Your task to perform on an android device: Open settings Image 0: 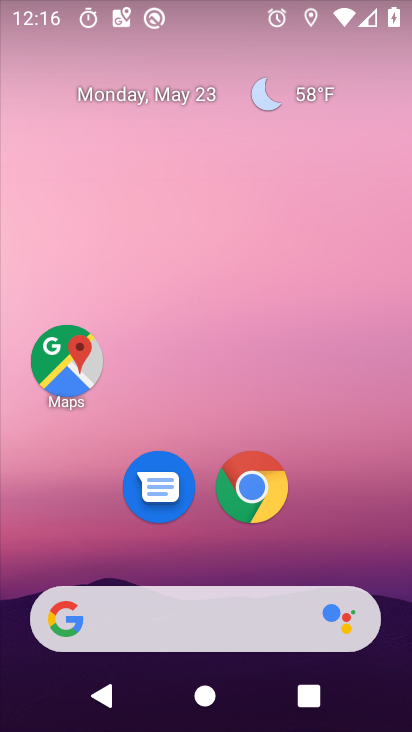
Step 0: drag from (315, 525) to (327, 111)
Your task to perform on an android device: Open settings Image 1: 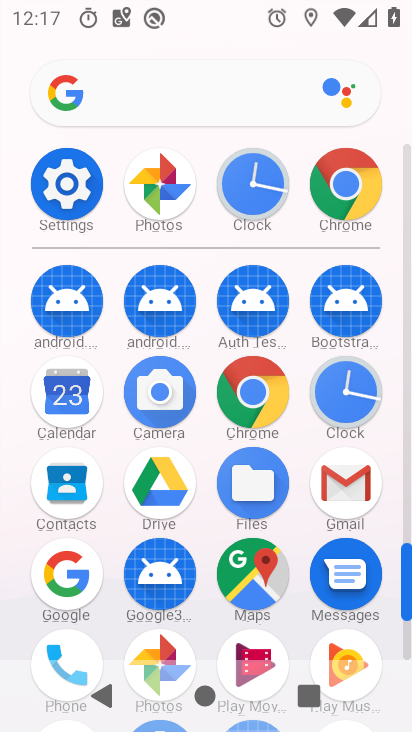
Step 1: click (77, 192)
Your task to perform on an android device: Open settings Image 2: 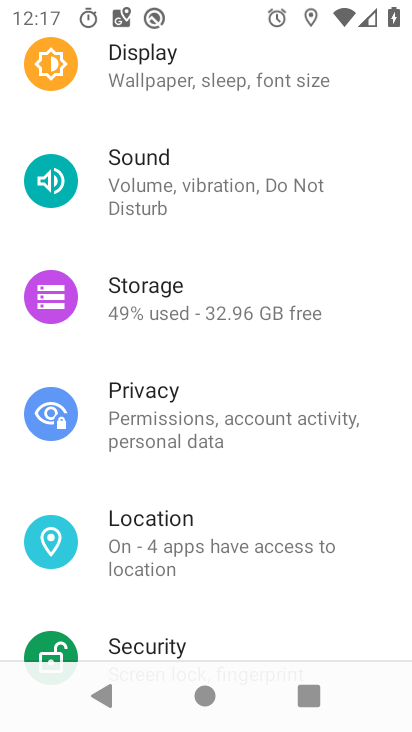
Step 2: task complete